Your task to perform on an android device: move a message to another label in the gmail app Image 0: 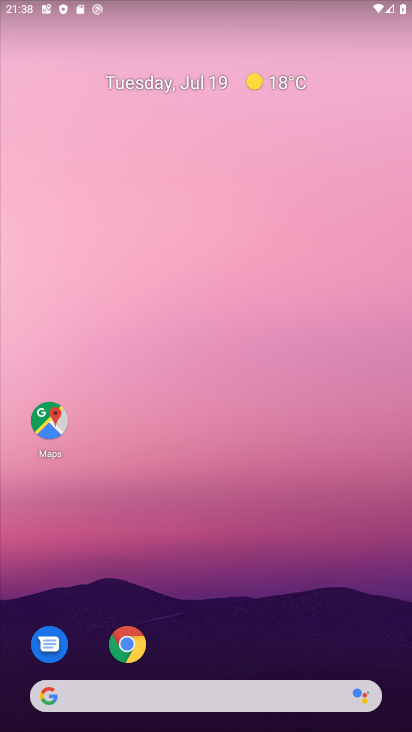
Step 0: drag from (226, 705) to (226, 205)
Your task to perform on an android device: move a message to another label in the gmail app Image 1: 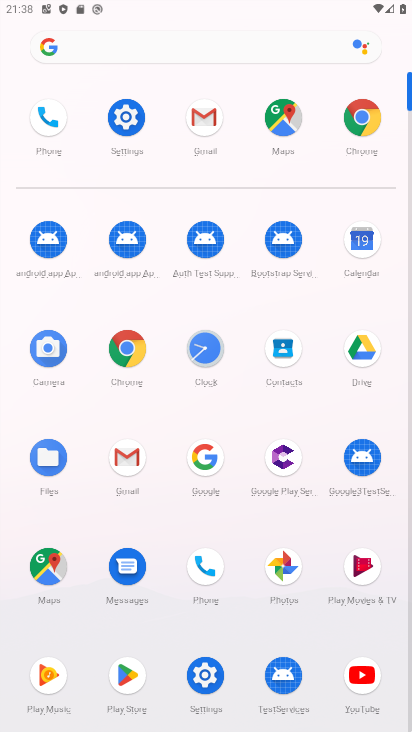
Step 1: click (127, 460)
Your task to perform on an android device: move a message to another label in the gmail app Image 2: 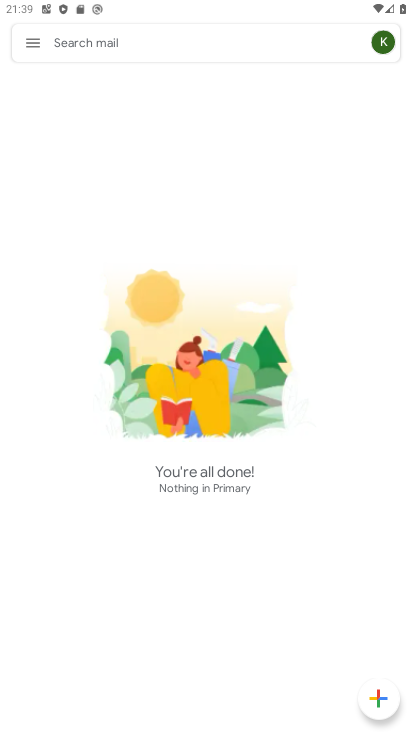
Step 2: task complete